Your task to perform on an android device: open the mobile data screen to see how much data has been used Image 0: 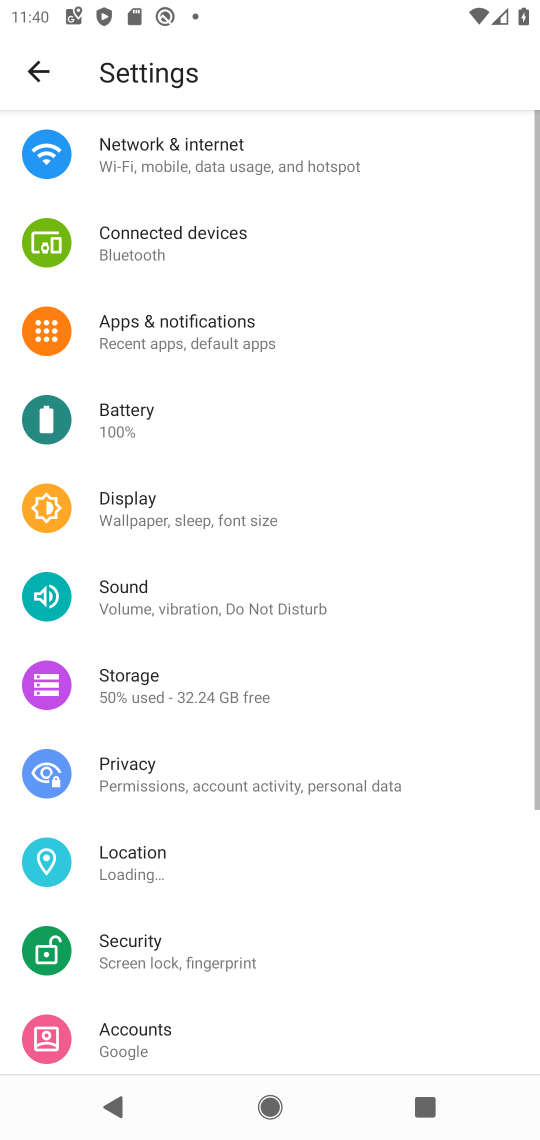
Step 0: press home button
Your task to perform on an android device: open the mobile data screen to see how much data has been used Image 1: 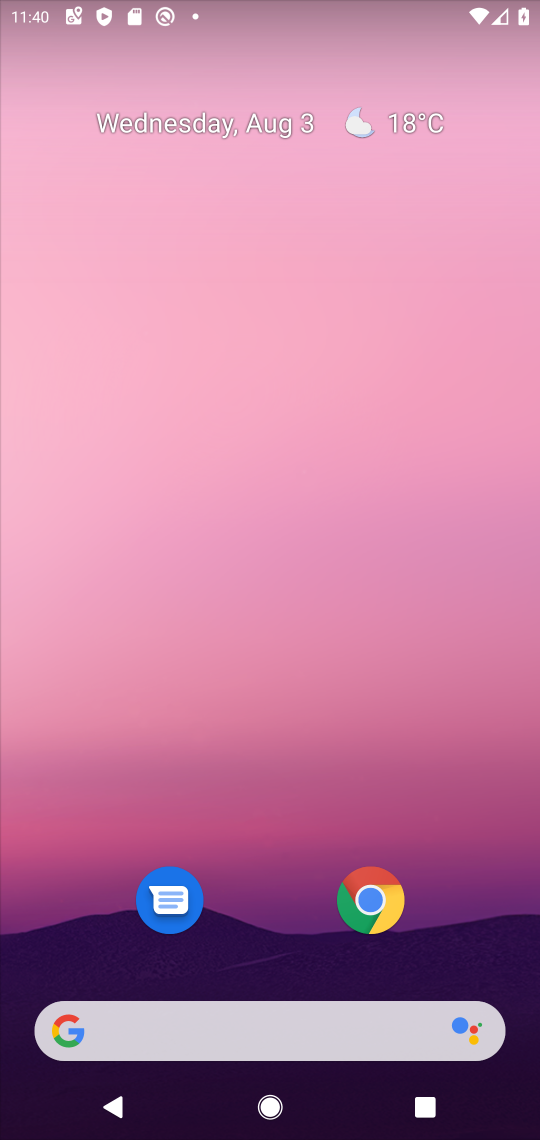
Step 1: drag from (291, 695) to (357, 0)
Your task to perform on an android device: open the mobile data screen to see how much data has been used Image 2: 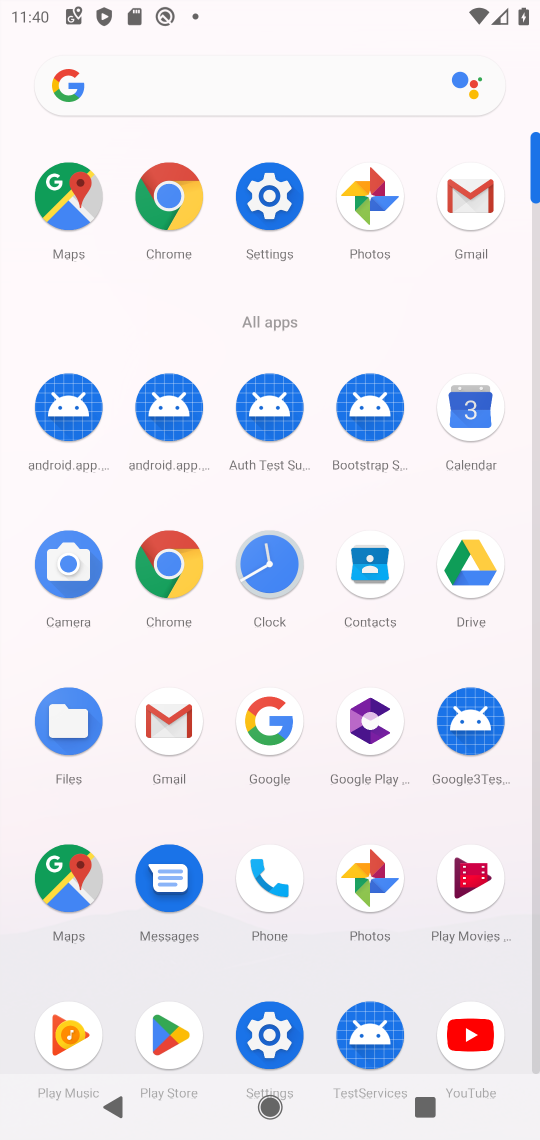
Step 2: click (273, 199)
Your task to perform on an android device: open the mobile data screen to see how much data has been used Image 3: 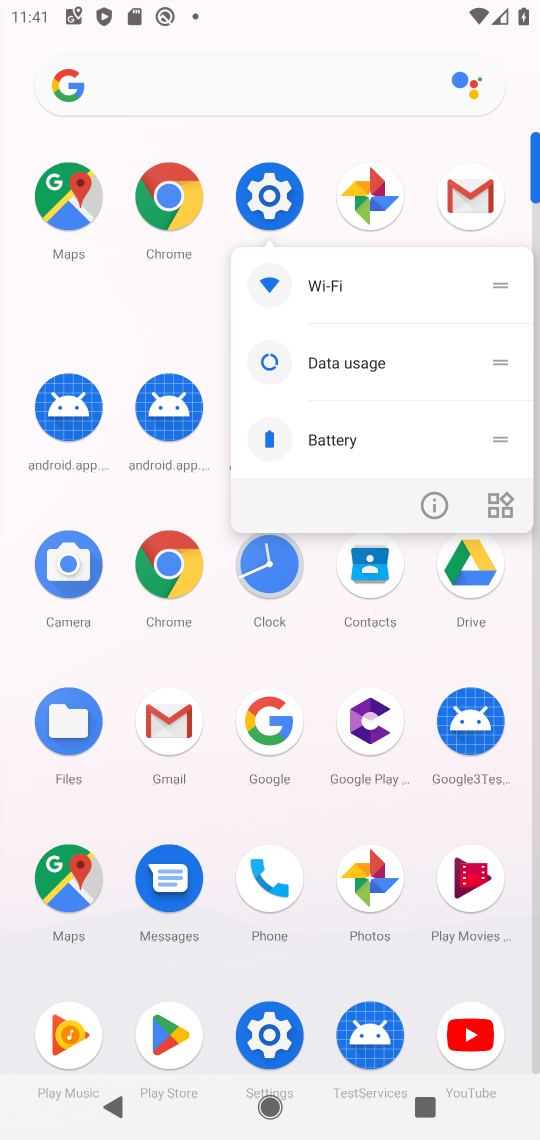
Step 3: click (273, 199)
Your task to perform on an android device: open the mobile data screen to see how much data has been used Image 4: 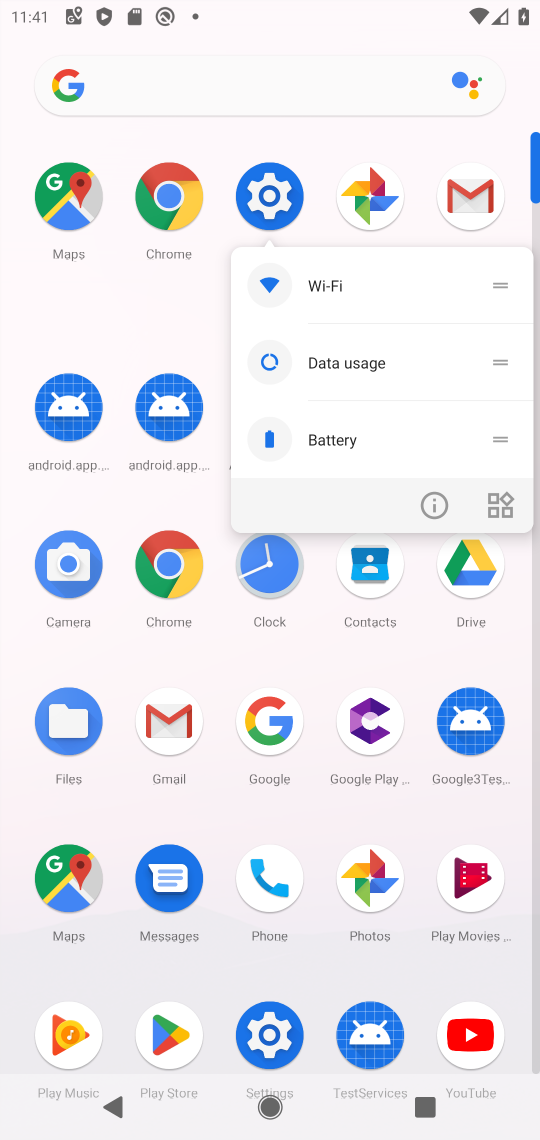
Step 4: click (266, 198)
Your task to perform on an android device: open the mobile data screen to see how much data has been used Image 5: 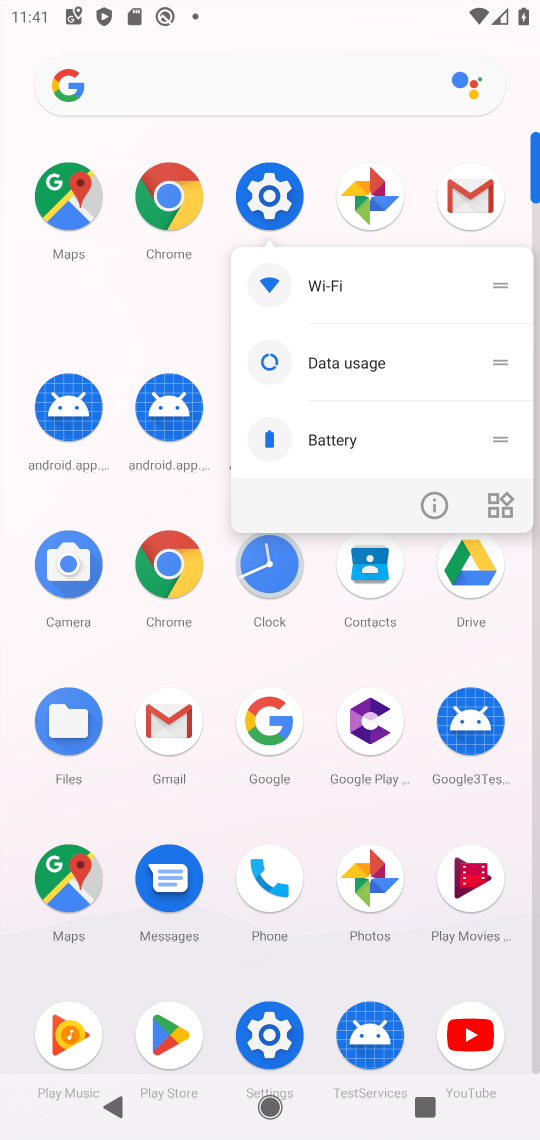
Step 5: click (283, 184)
Your task to perform on an android device: open the mobile data screen to see how much data has been used Image 6: 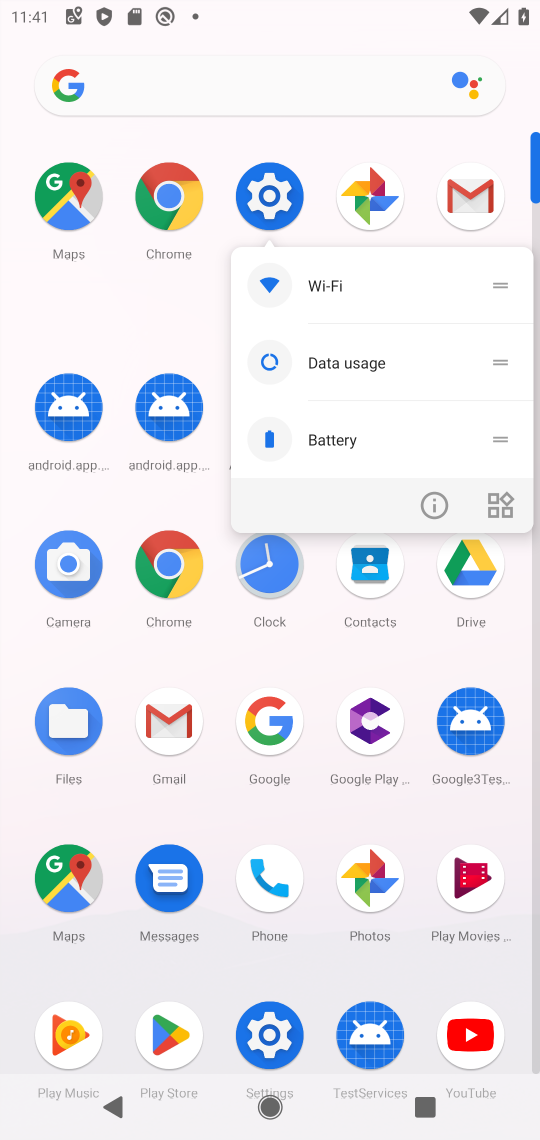
Step 6: click (260, 191)
Your task to perform on an android device: open the mobile data screen to see how much data has been used Image 7: 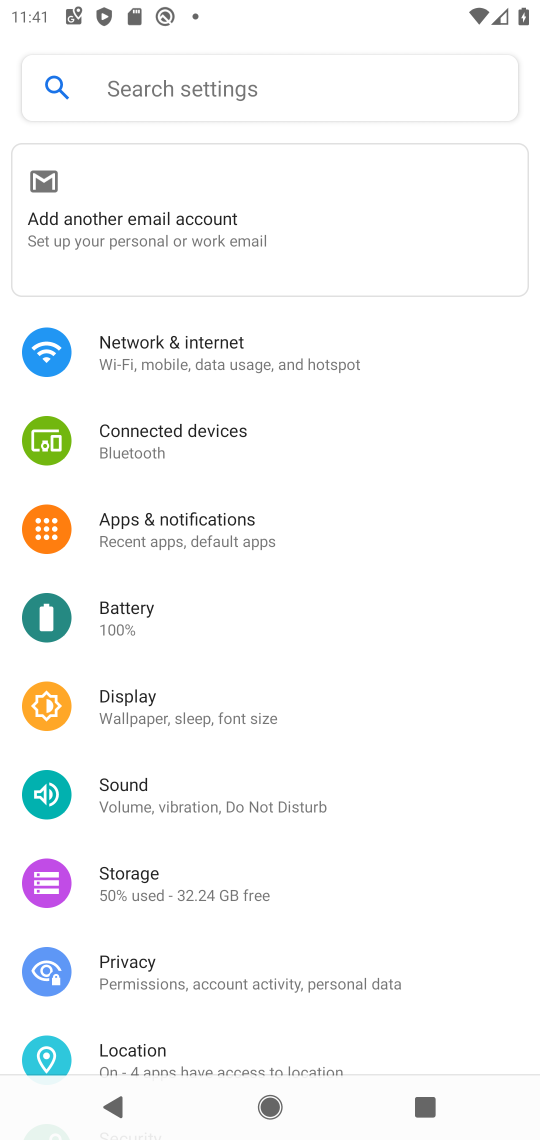
Step 7: click (206, 363)
Your task to perform on an android device: open the mobile data screen to see how much data has been used Image 8: 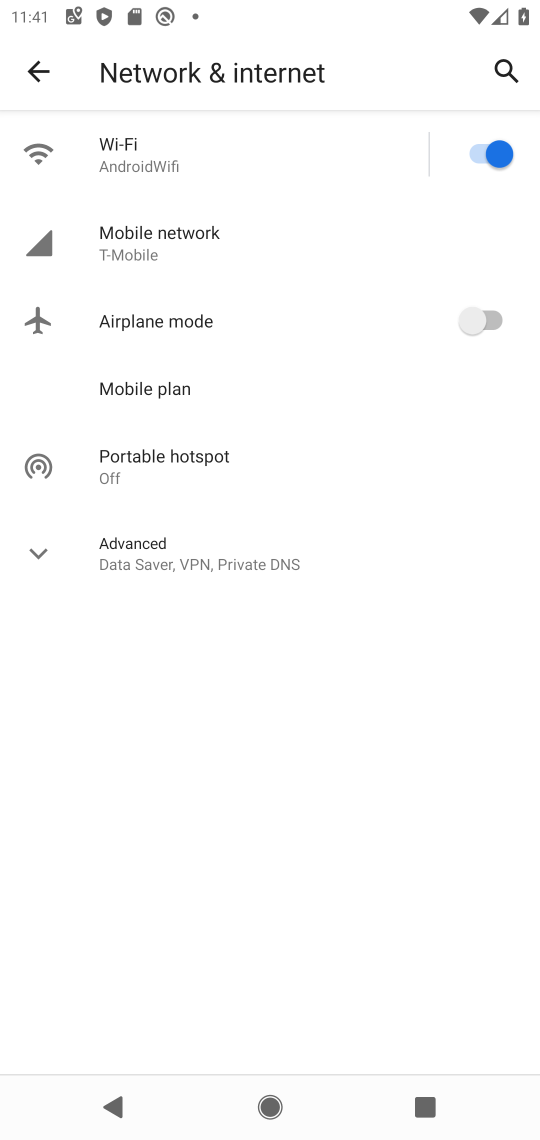
Step 8: click (141, 233)
Your task to perform on an android device: open the mobile data screen to see how much data has been used Image 9: 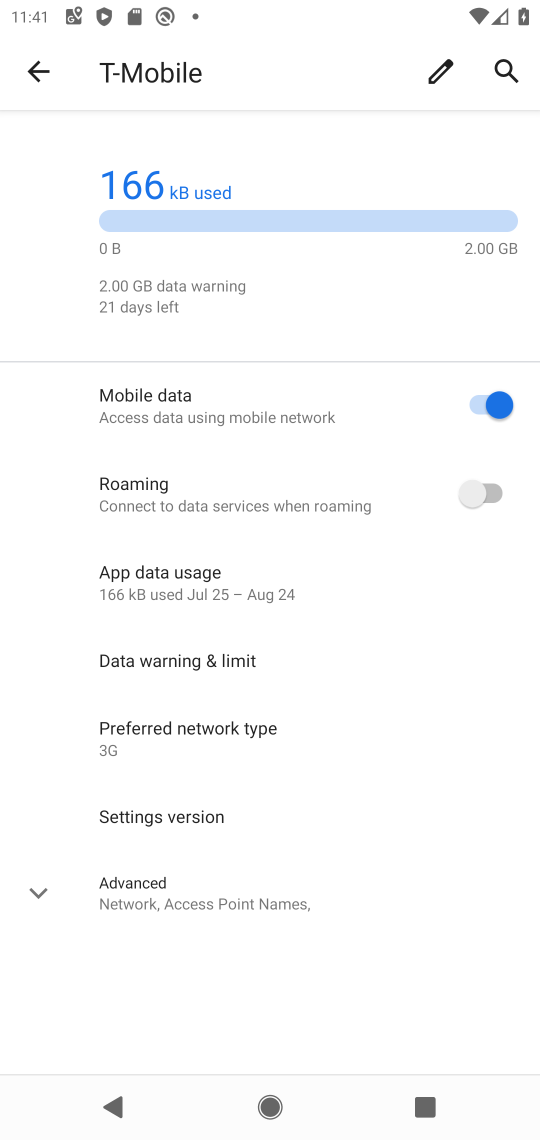
Step 9: task complete